Your task to perform on an android device: turn on bluetooth scan Image 0: 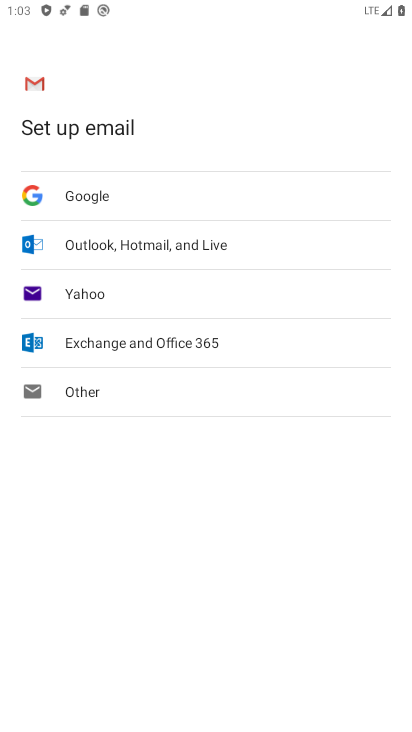
Step 0: press home button
Your task to perform on an android device: turn on bluetooth scan Image 1: 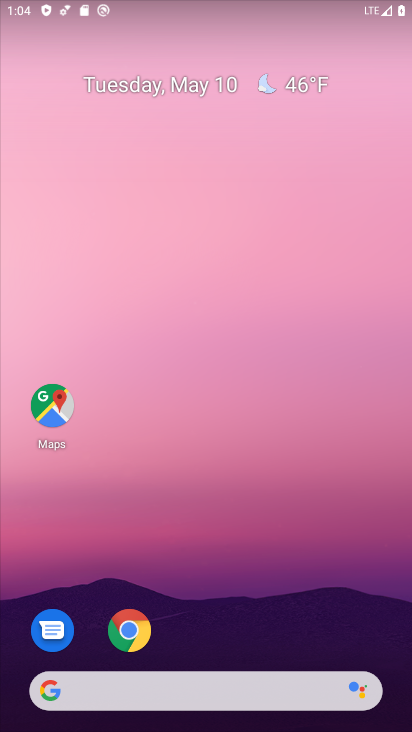
Step 1: drag from (221, 649) to (218, 2)
Your task to perform on an android device: turn on bluetooth scan Image 2: 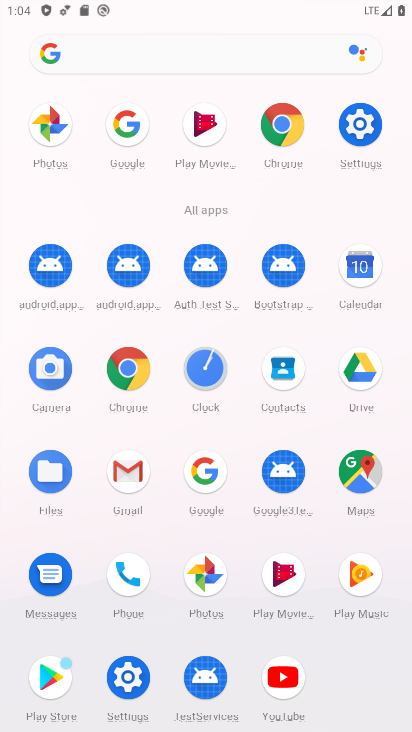
Step 2: click (358, 143)
Your task to perform on an android device: turn on bluetooth scan Image 3: 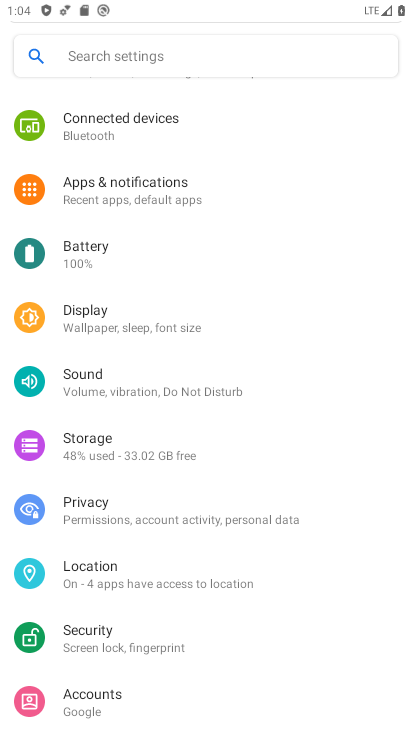
Step 3: click (104, 566)
Your task to perform on an android device: turn on bluetooth scan Image 4: 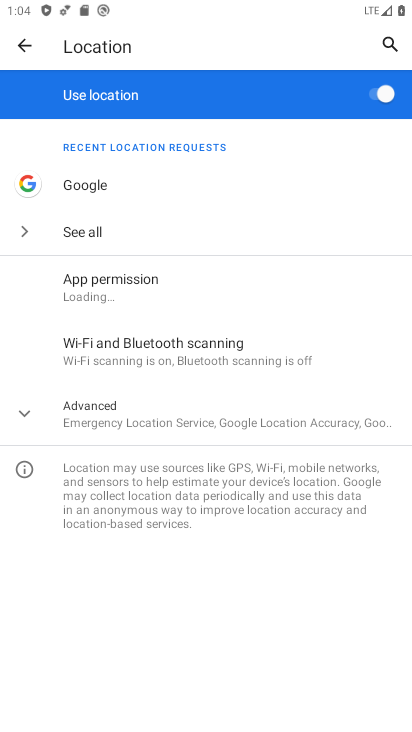
Step 4: click (127, 396)
Your task to perform on an android device: turn on bluetooth scan Image 5: 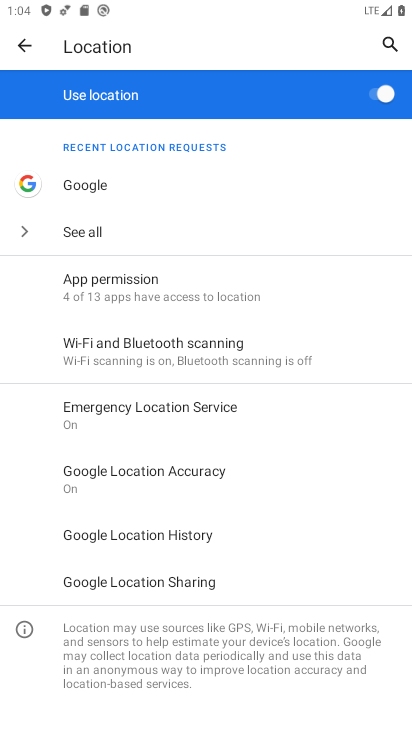
Step 5: click (143, 337)
Your task to perform on an android device: turn on bluetooth scan Image 6: 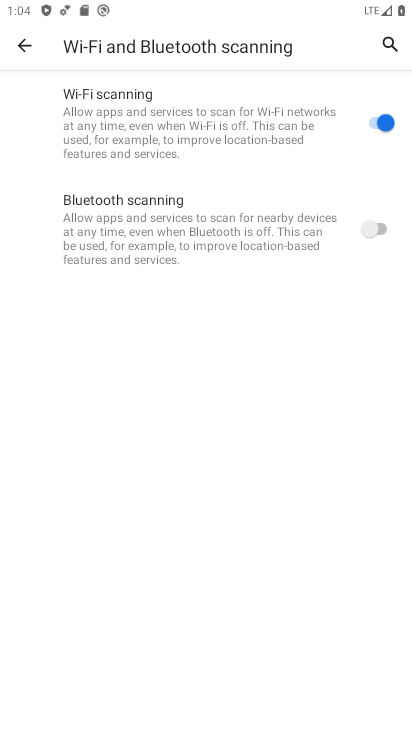
Step 6: click (365, 224)
Your task to perform on an android device: turn on bluetooth scan Image 7: 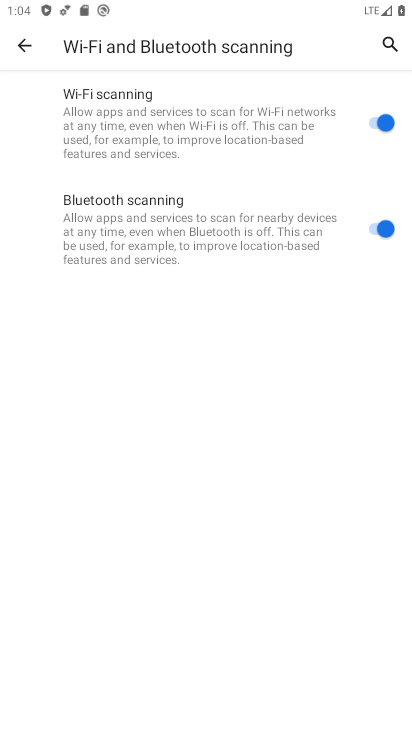
Step 7: task complete